Your task to perform on an android device: Open the phone app and click the voicemail tab. Image 0: 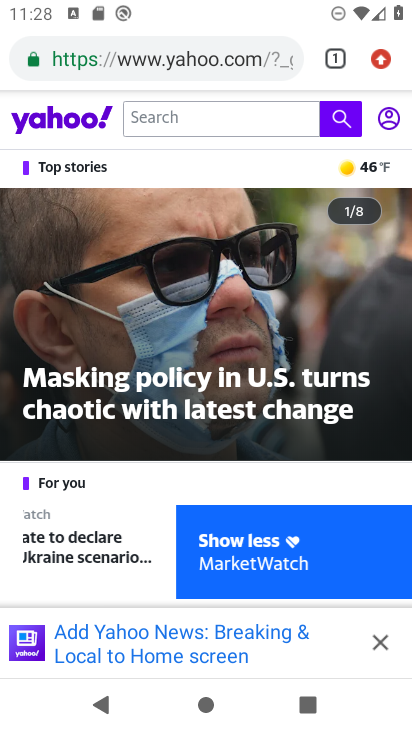
Step 0: press home button
Your task to perform on an android device: Open the phone app and click the voicemail tab. Image 1: 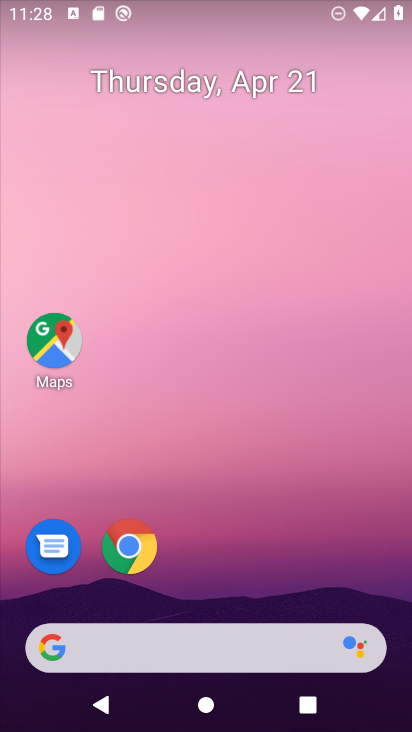
Step 1: drag from (384, 608) to (294, 179)
Your task to perform on an android device: Open the phone app and click the voicemail tab. Image 2: 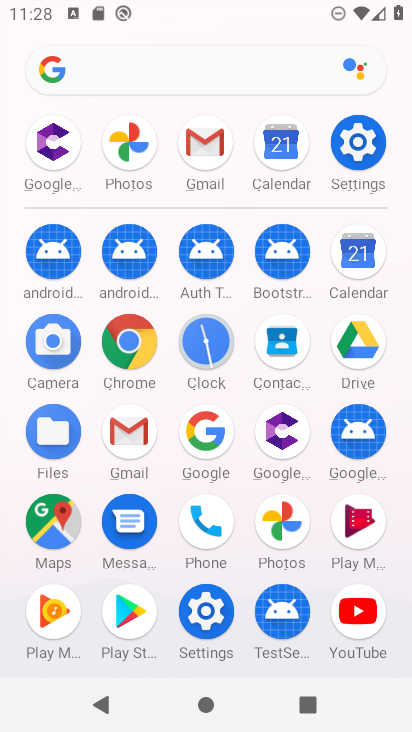
Step 2: click (204, 514)
Your task to perform on an android device: Open the phone app and click the voicemail tab. Image 3: 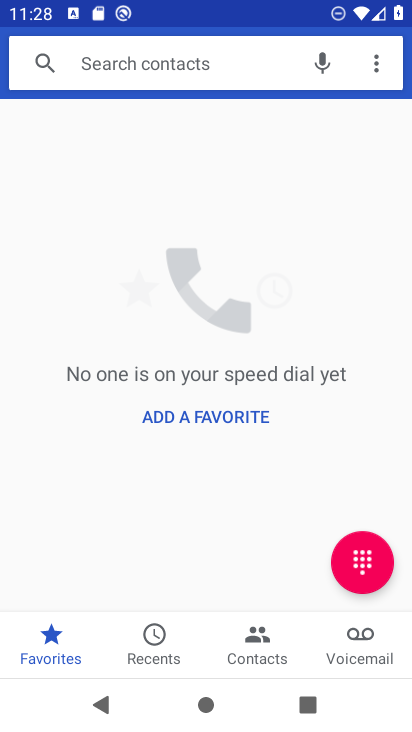
Step 3: click (341, 639)
Your task to perform on an android device: Open the phone app and click the voicemail tab. Image 4: 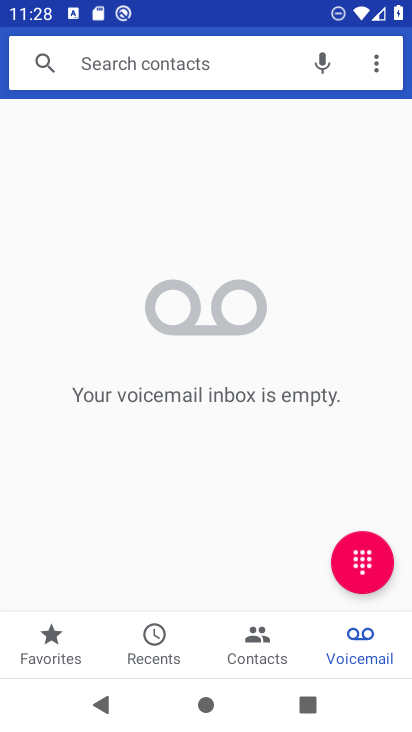
Step 4: task complete